Your task to perform on an android device: all mails in gmail Image 0: 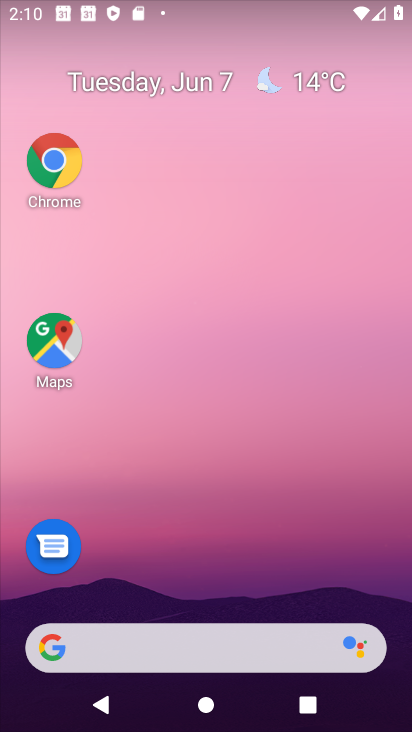
Step 0: drag from (197, 549) to (212, 16)
Your task to perform on an android device: all mails in gmail Image 1: 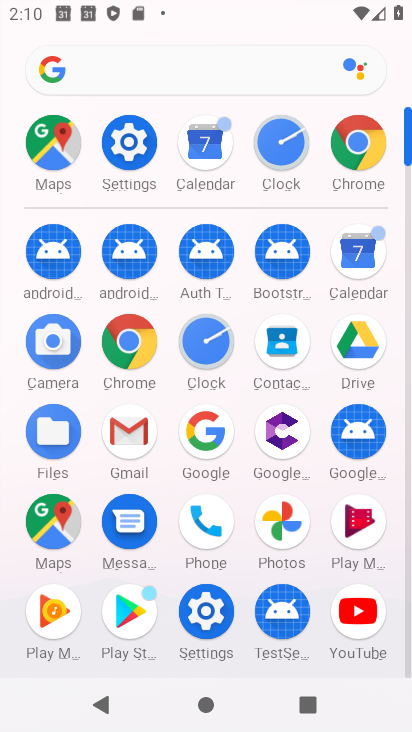
Step 1: click (132, 421)
Your task to perform on an android device: all mails in gmail Image 2: 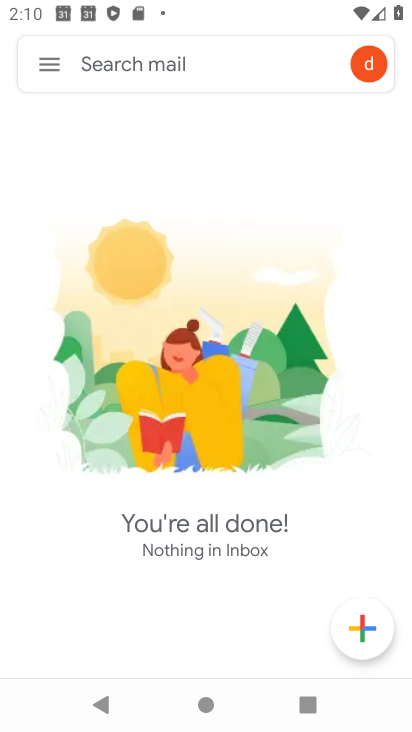
Step 2: click (49, 69)
Your task to perform on an android device: all mails in gmail Image 3: 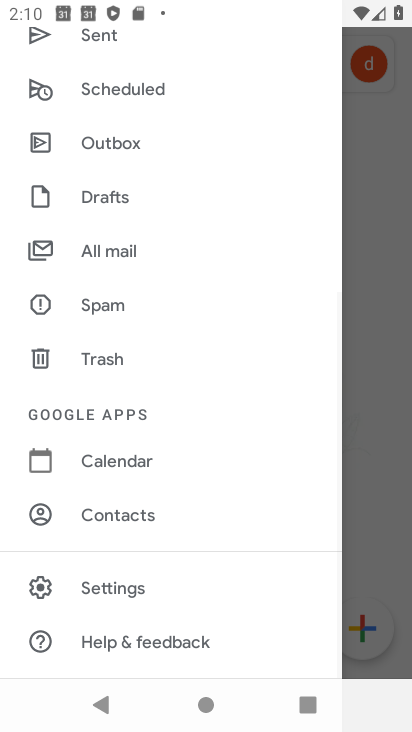
Step 3: click (147, 246)
Your task to perform on an android device: all mails in gmail Image 4: 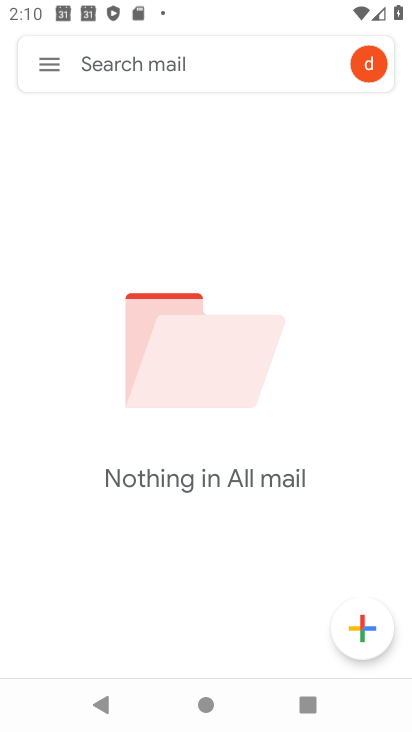
Step 4: task complete